Your task to perform on an android device: toggle location history Image 0: 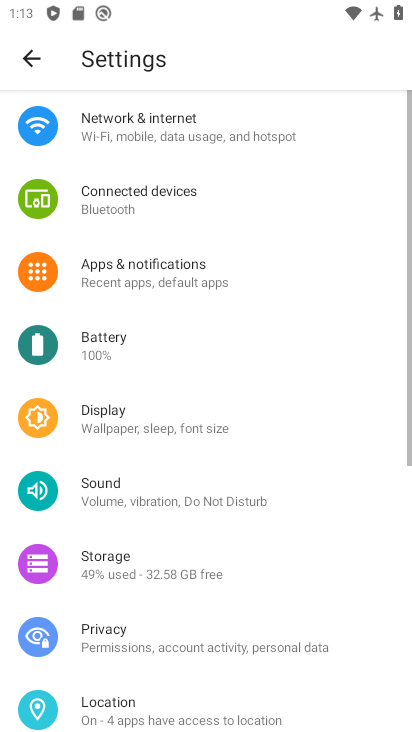
Step 0: press home button
Your task to perform on an android device: toggle location history Image 1: 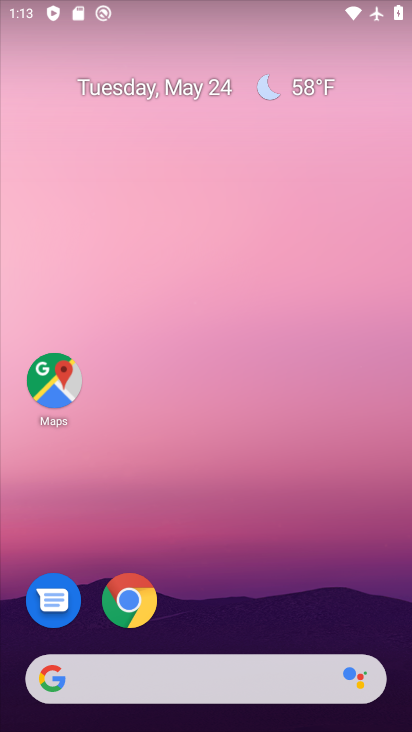
Step 1: drag from (294, 589) to (158, 0)
Your task to perform on an android device: toggle location history Image 2: 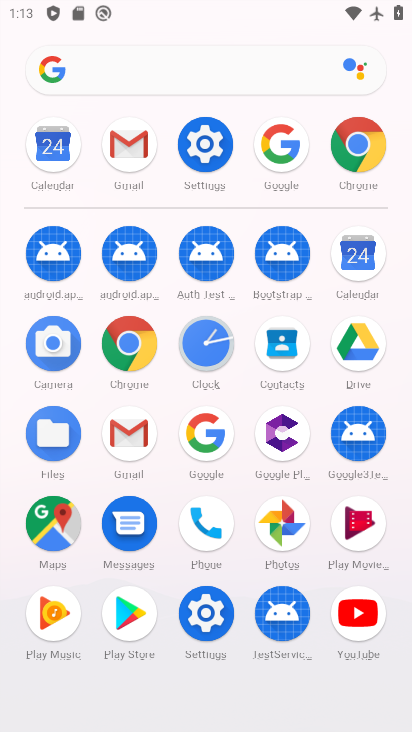
Step 2: click (210, 149)
Your task to perform on an android device: toggle location history Image 3: 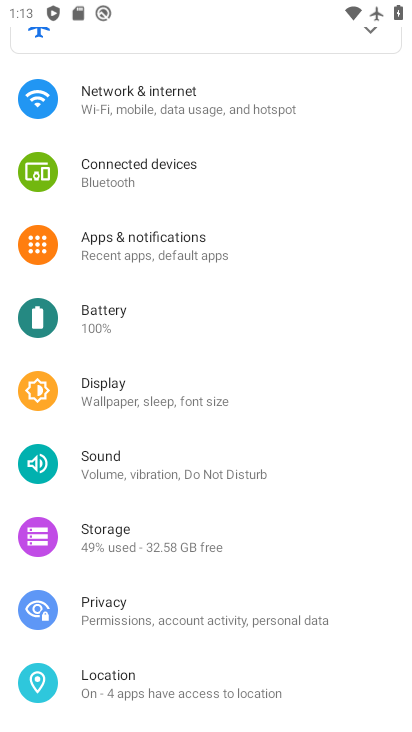
Step 3: click (192, 693)
Your task to perform on an android device: toggle location history Image 4: 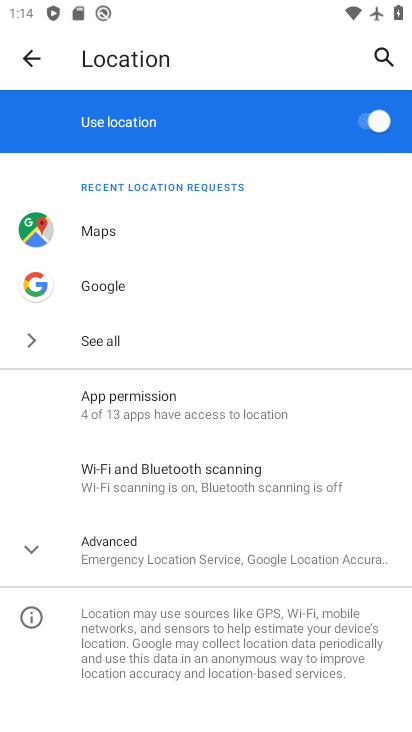
Step 4: click (209, 545)
Your task to perform on an android device: toggle location history Image 5: 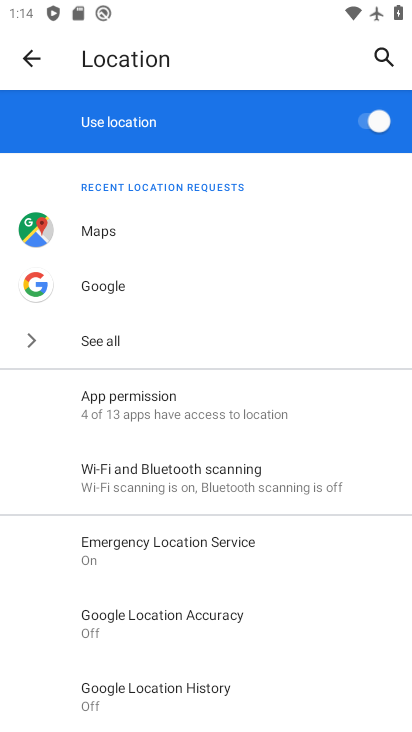
Step 5: click (238, 622)
Your task to perform on an android device: toggle location history Image 6: 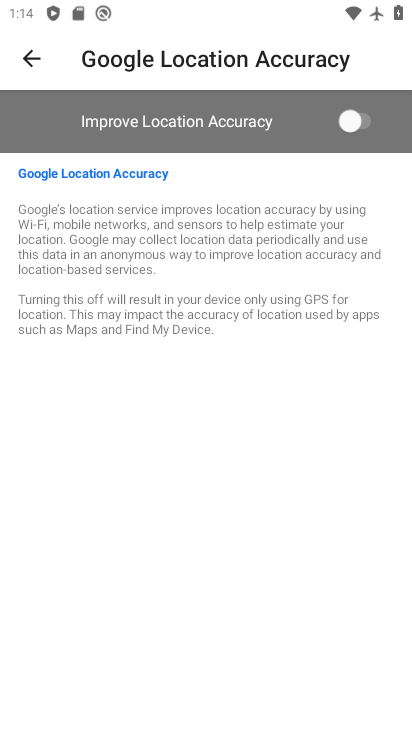
Step 6: click (357, 122)
Your task to perform on an android device: toggle location history Image 7: 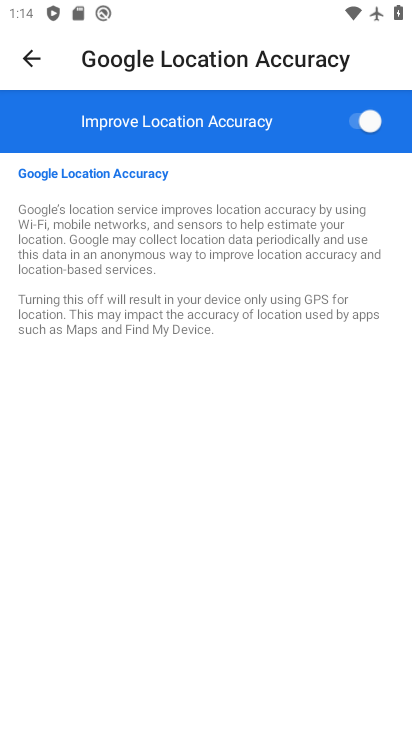
Step 7: task complete